Your task to perform on an android device: Show me the alarms in the clock app Image 0: 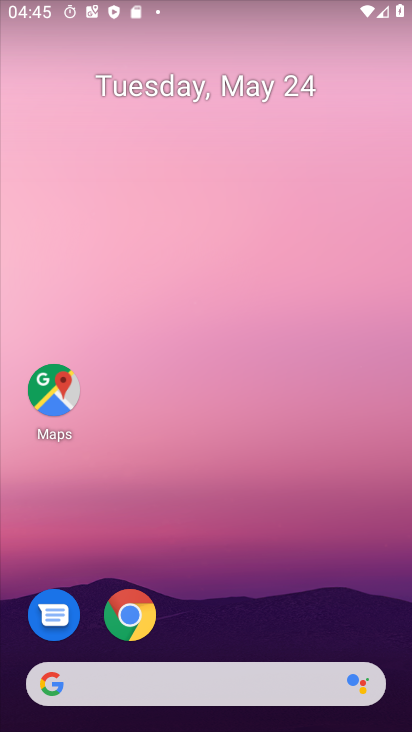
Step 0: drag from (222, 590) to (216, 48)
Your task to perform on an android device: Show me the alarms in the clock app Image 1: 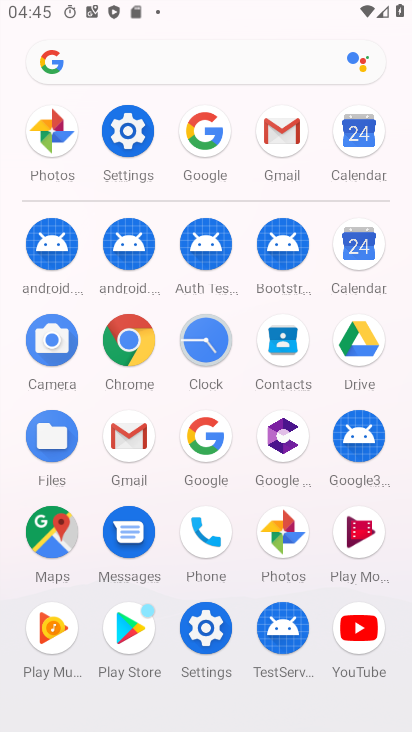
Step 1: click (203, 340)
Your task to perform on an android device: Show me the alarms in the clock app Image 2: 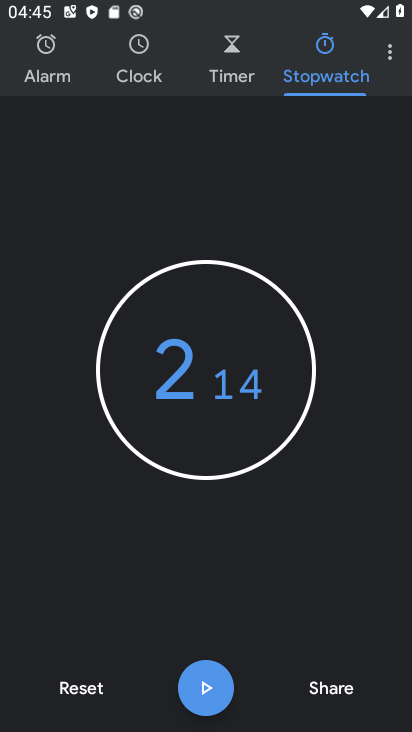
Step 2: click (42, 61)
Your task to perform on an android device: Show me the alarms in the clock app Image 3: 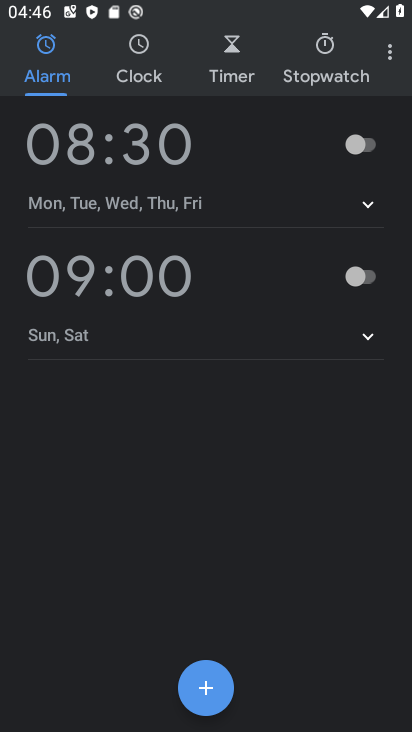
Step 3: task complete